Your task to perform on an android device: read, delete, or share a saved page in the chrome app Image 0: 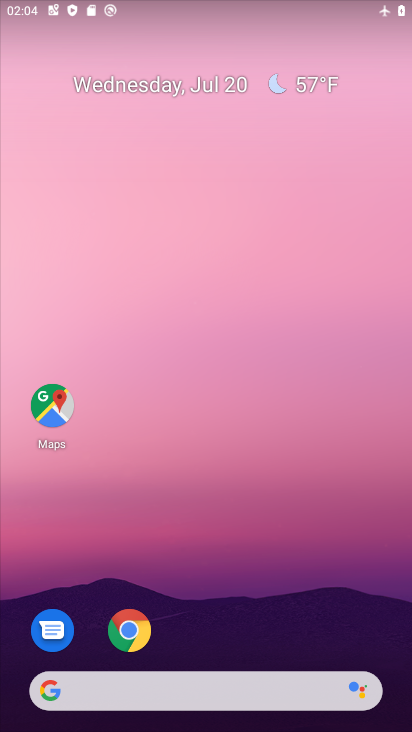
Step 0: drag from (343, 437) to (341, 113)
Your task to perform on an android device: read, delete, or share a saved page in the chrome app Image 1: 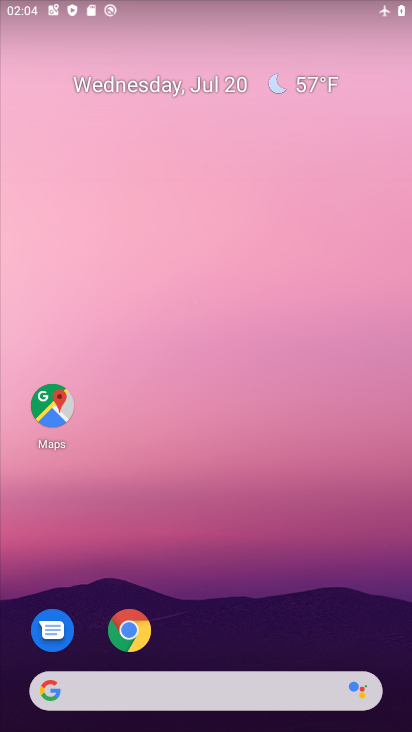
Step 1: drag from (273, 581) to (265, 77)
Your task to perform on an android device: read, delete, or share a saved page in the chrome app Image 2: 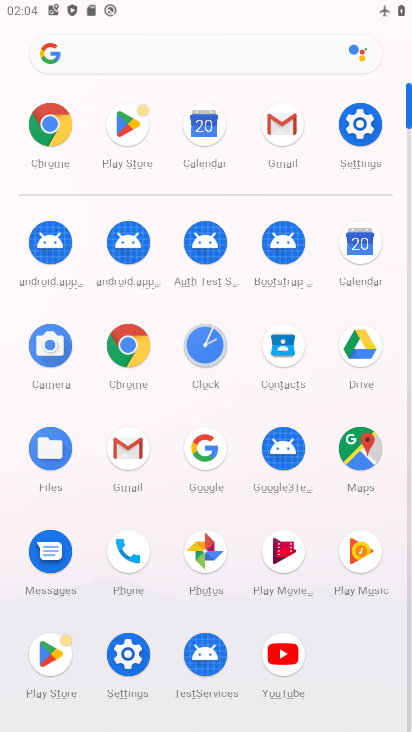
Step 2: click (131, 344)
Your task to perform on an android device: read, delete, or share a saved page in the chrome app Image 3: 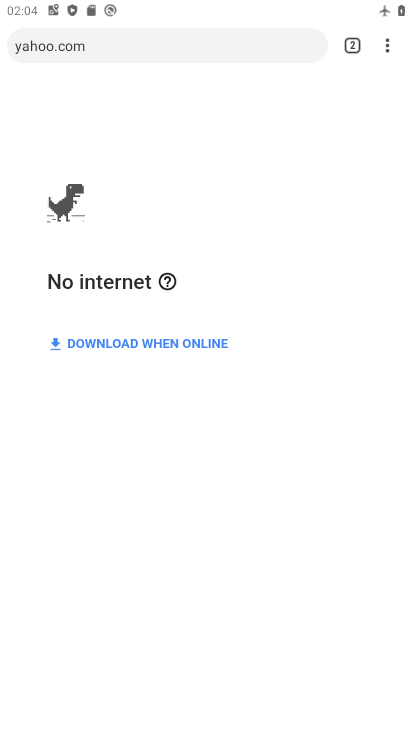
Step 3: task complete